Your task to perform on an android device: Open Google Chrome and click the shortcut for Amazon.com Image 0: 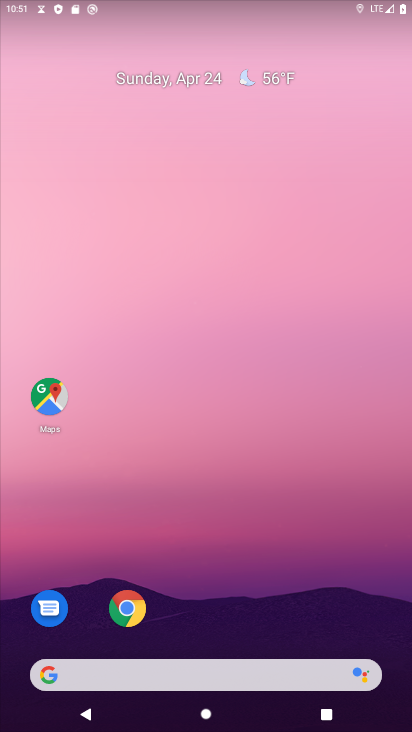
Step 0: drag from (203, 633) to (375, 15)
Your task to perform on an android device: Open Google Chrome and click the shortcut for Amazon.com Image 1: 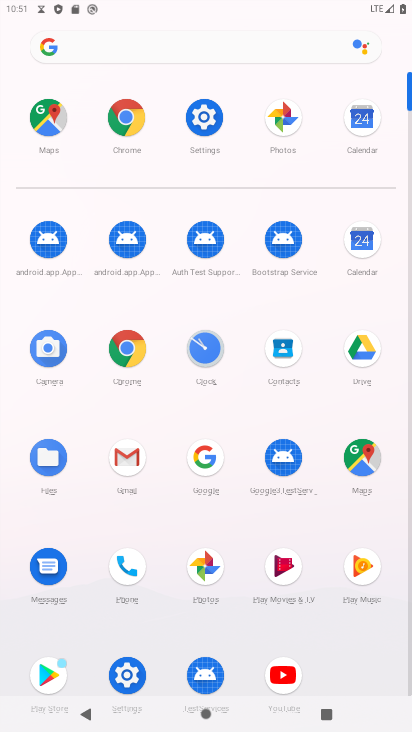
Step 1: click (117, 105)
Your task to perform on an android device: Open Google Chrome and click the shortcut for Amazon.com Image 2: 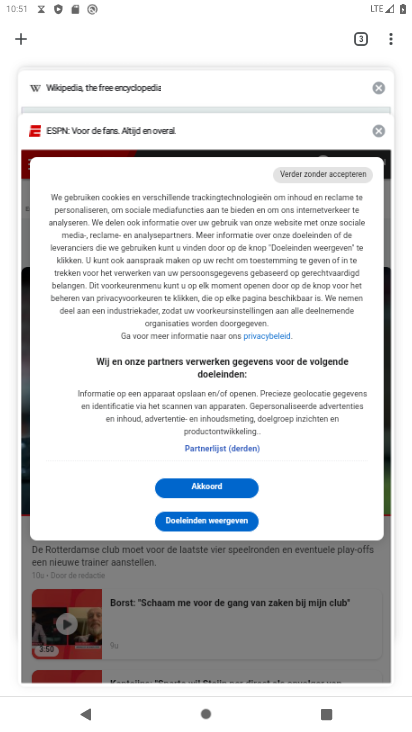
Step 2: click (16, 34)
Your task to perform on an android device: Open Google Chrome and click the shortcut for Amazon.com Image 3: 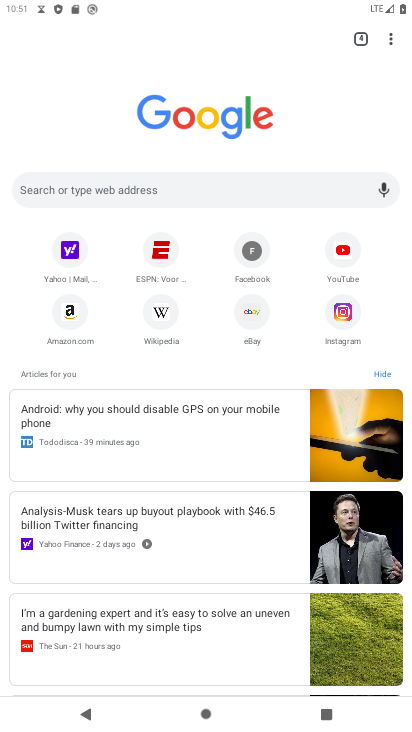
Step 3: click (66, 322)
Your task to perform on an android device: Open Google Chrome and click the shortcut for Amazon.com Image 4: 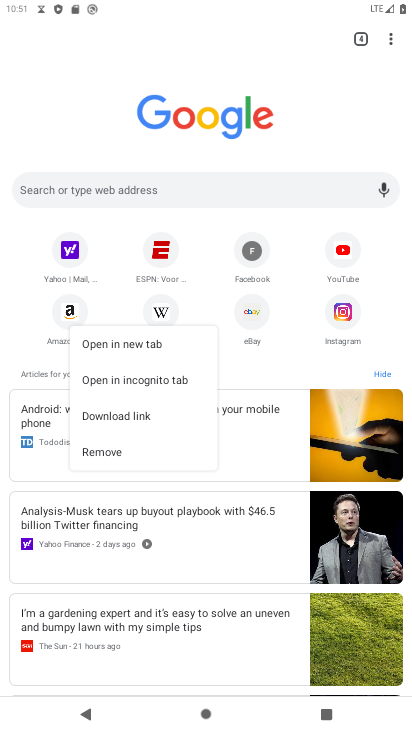
Step 4: click (80, 304)
Your task to perform on an android device: Open Google Chrome and click the shortcut for Amazon.com Image 5: 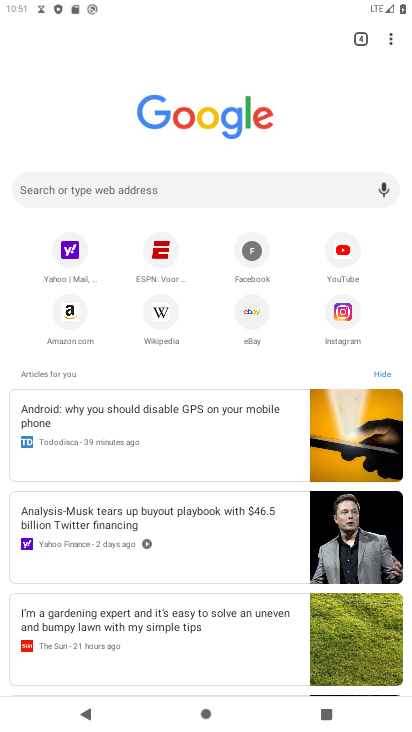
Step 5: click (77, 312)
Your task to perform on an android device: Open Google Chrome and click the shortcut for Amazon.com Image 6: 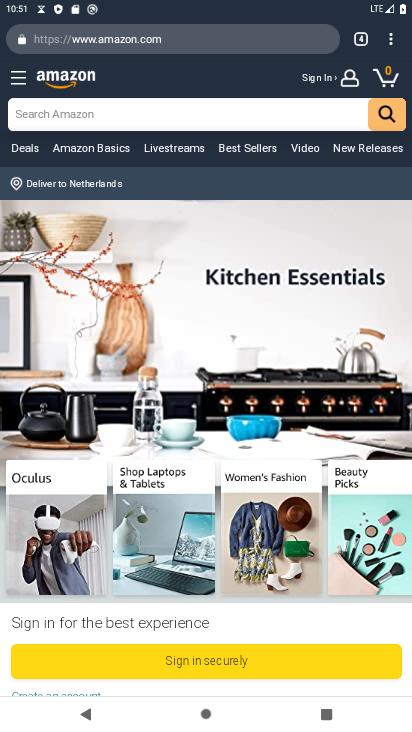
Step 6: task complete